Your task to perform on an android device: Open maps Image 0: 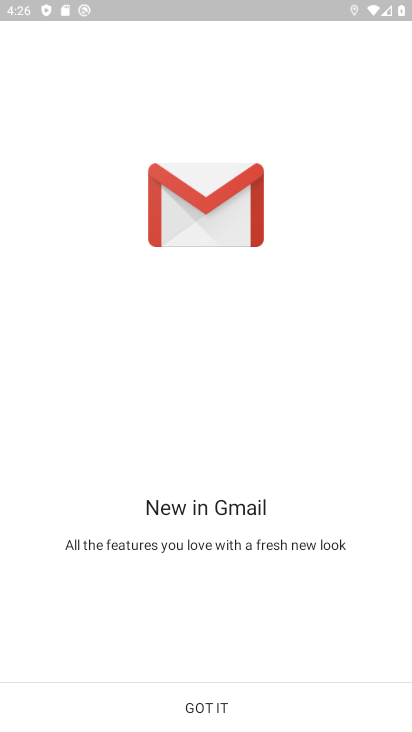
Step 0: click (204, 700)
Your task to perform on an android device: Open maps Image 1: 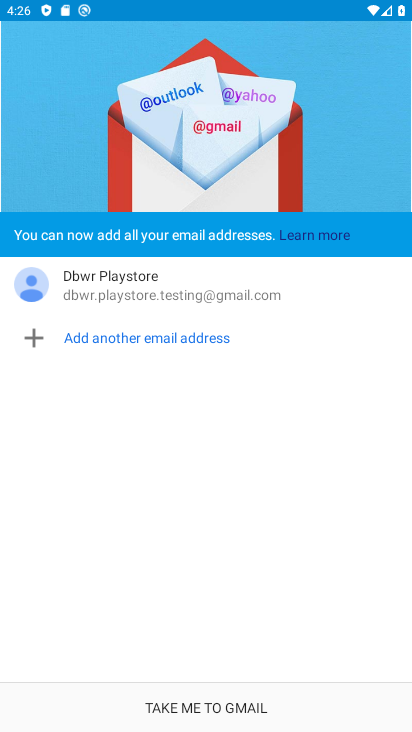
Step 1: press home button
Your task to perform on an android device: Open maps Image 2: 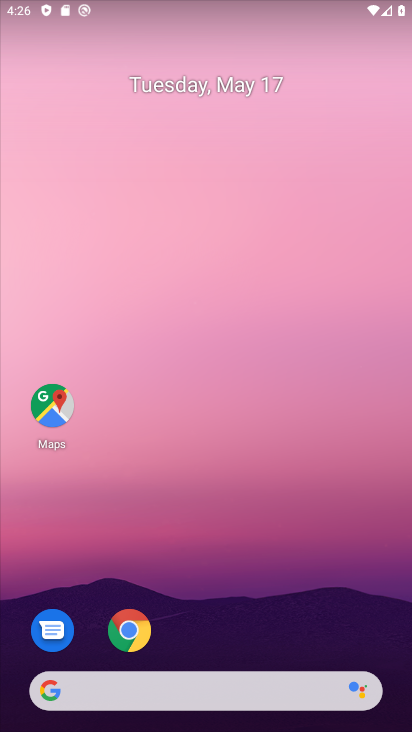
Step 2: click (49, 401)
Your task to perform on an android device: Open maps Image 3: 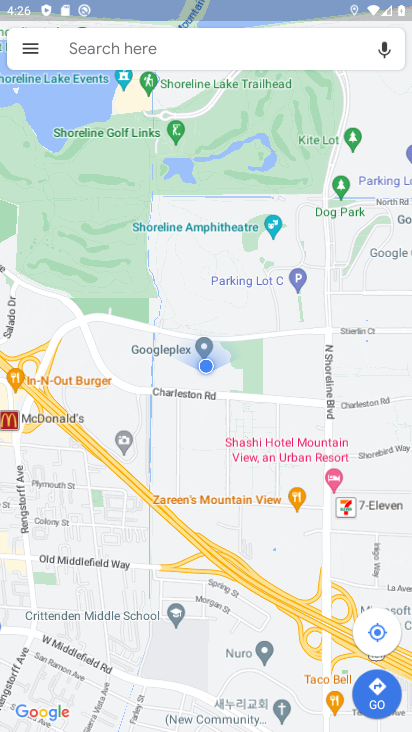
Step 3: task complete